Your task to perform on an android device: turn on improve location accuracy Image 0: 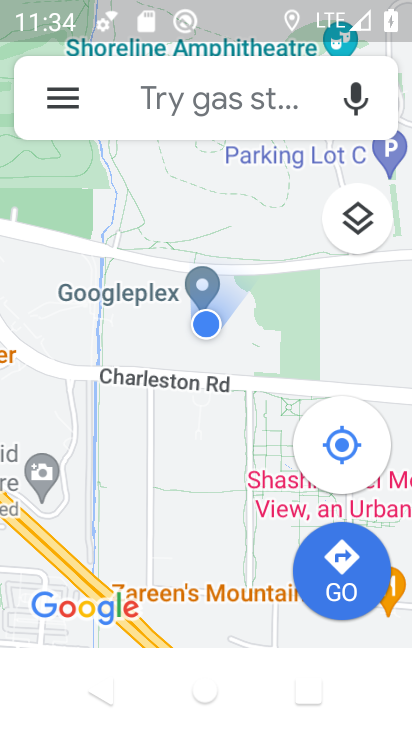
Step 0: press back button
Your task to perform on an android device: turn on improve location accuracy Image 1: 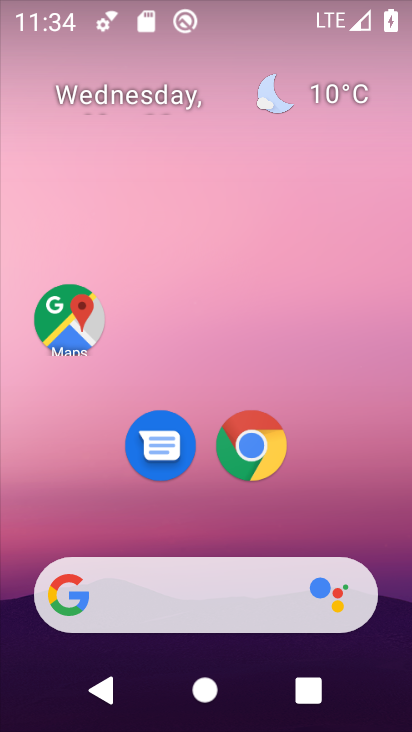
Step 1: drag from (195, 433) to (299, 4)
Your task to perform on an android device: turn on improve location accuracy Image 2: 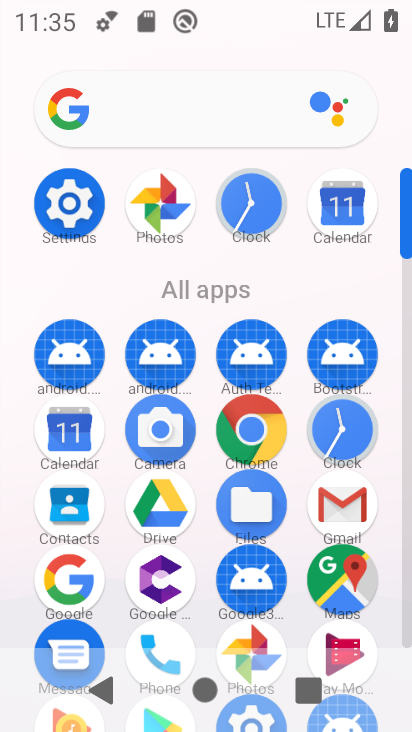
Step 2: click (82, 214)
Your task to perform on an android device: turn on improve location accuracy Image 3: 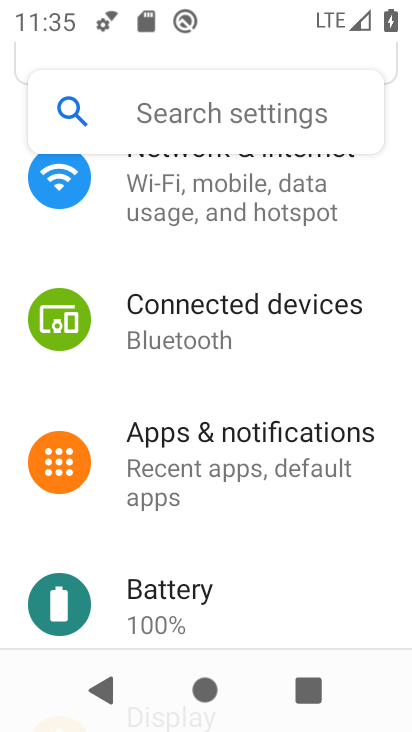
Step 3: drag from (228, 234) to (233, 707)
Your task to perform on an android device: turn on improve location accuracy Image 4: 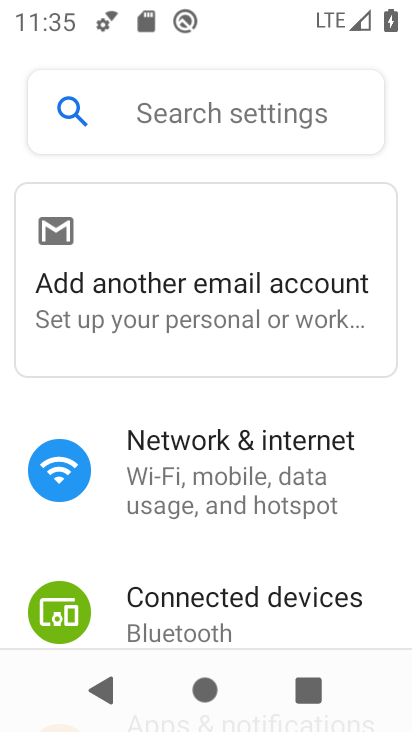
Step 4: drag from (193, 563) to (275, 27)
Your task to perform on an android device: turn on improve location accuracy Image 5: 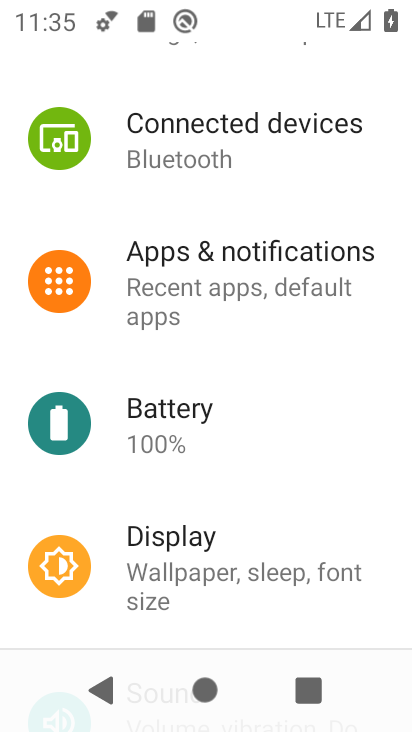
Step 5: drag from (218, 549) to (269, 46)
Your task to perform on an android device: turn on improve location accuracy Image 6: 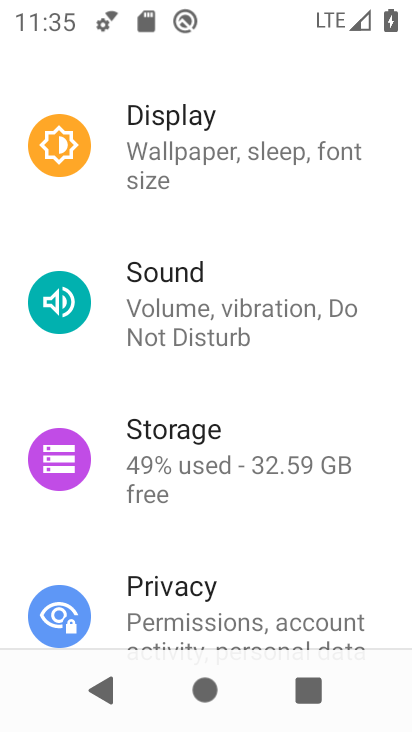
Step 6: drag from (188, 544) to (293, 10)
Your task to perform on an android device: turn on improve location accuracy Image 7: 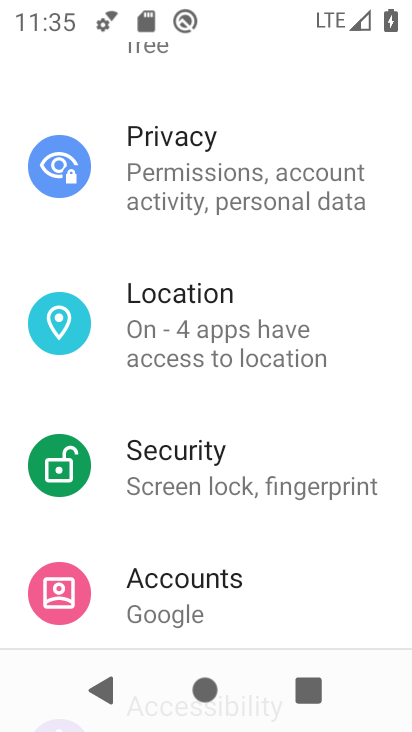
Step 7: click (161, 317)
Your task to perform on an android device: turn on improve location accuracy Image 8: 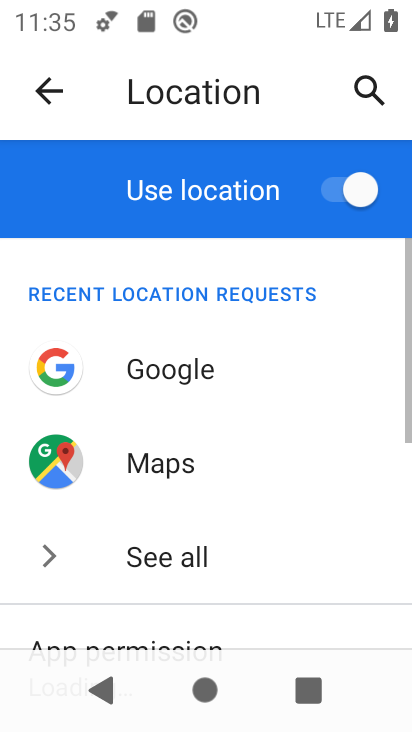
Step 8: drag from (205, 578) to (320, 75)
Your task to perform on an android device: turn on improve location accuracy Image 9: 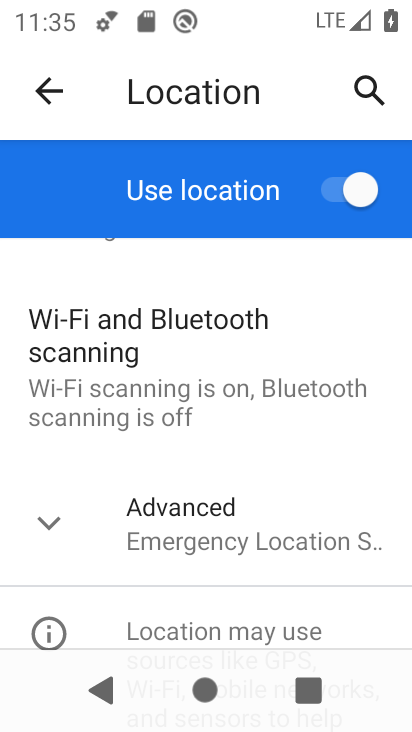
Step 9: click (194, 514)
Your task to perform on an android device: turn on improve location accuracy Image 10: 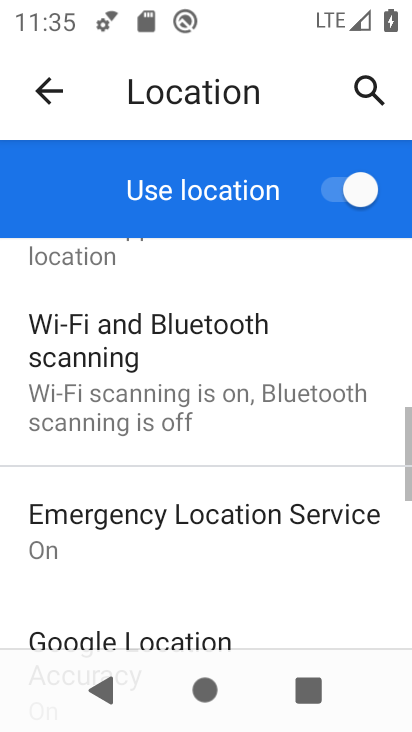
Step 10: drag from (184, 563) to (264, 140)
Your task to perform on an android device: turn on improve location accuracy Image 11: 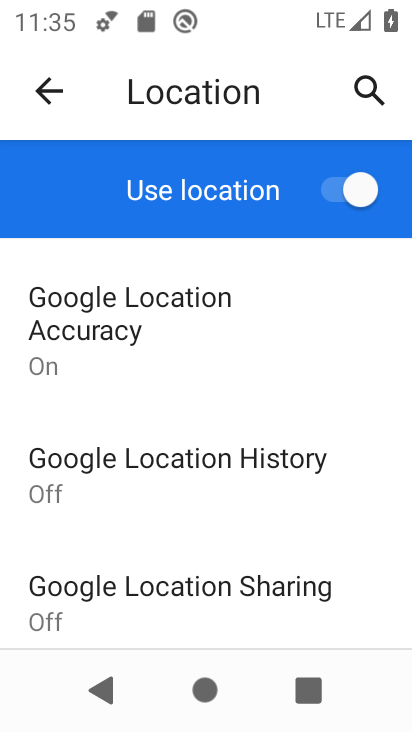
Step 11: click (133, 320)
Your task to perform on an android device: turn on improve location accuracy Image 12: 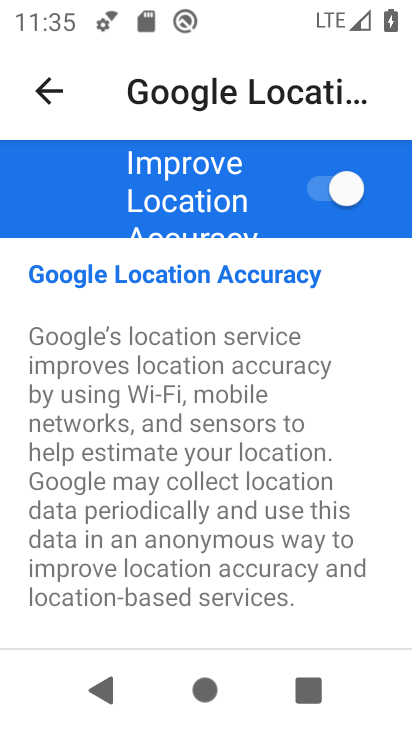
Step 12: task complete